Your task to perform on an android device: add a contact Image 0: 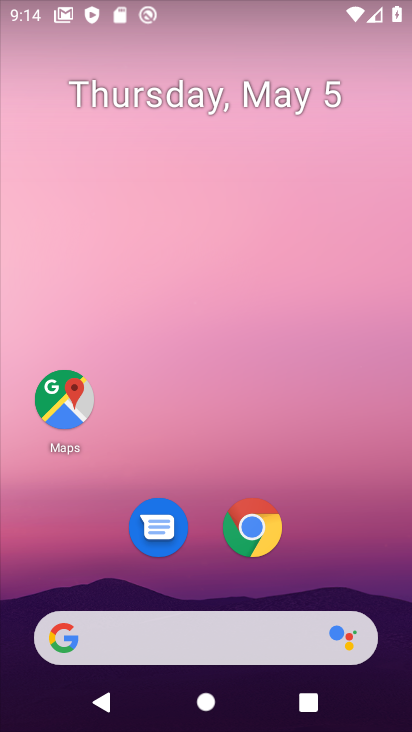
Step 0: drag from (370, 571) to (345, 254)
Your task to perform on an android device: add a contact Image 1: 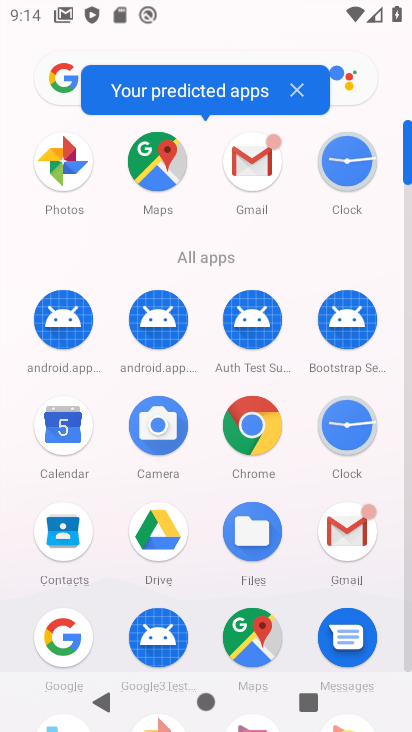
Step 1: click (87, 519)
Your task to perform on an android device: add a contact Image 2: 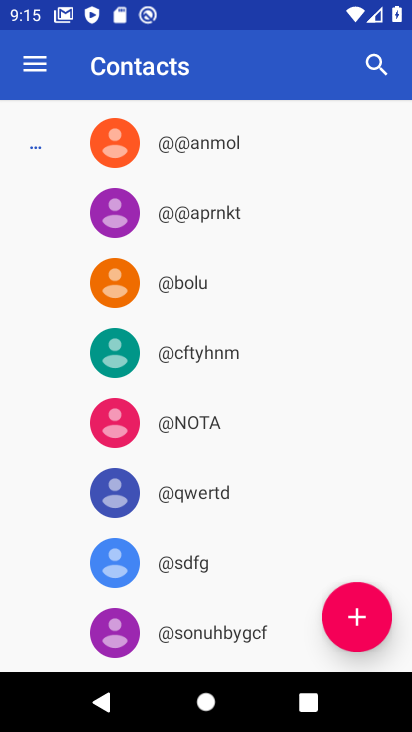
Step 2: click (350, 605)
Your task to perform on an android device: add a contact Image 3: 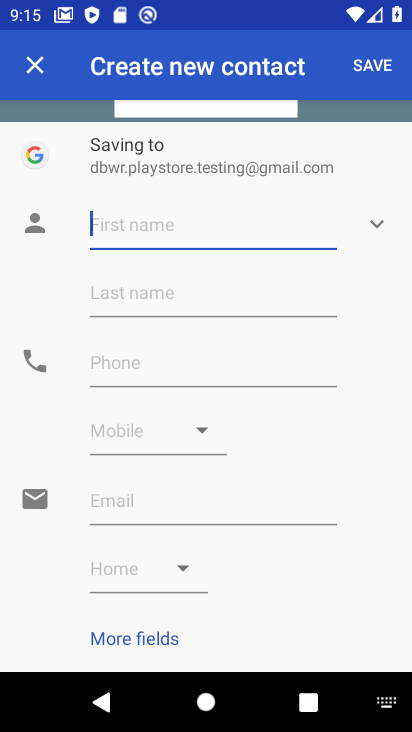
Step 3: click (152, 233)
Your task to perform on an android device: add a contact Image 4: 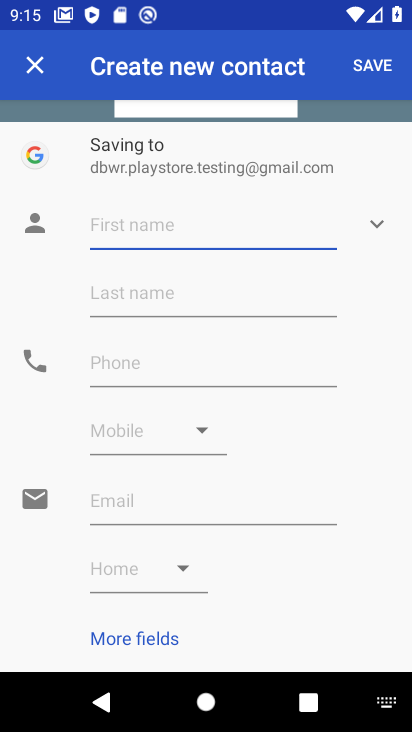
Step 4: type "sdbksjbfk"
Your task to perform on an android device: add a contact Image 5: 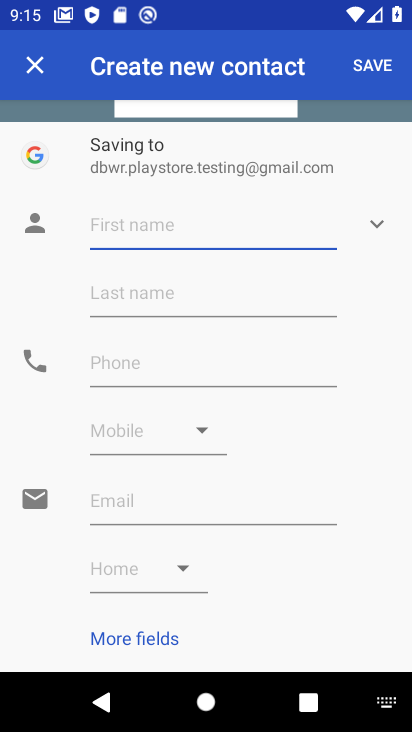
Step 5: click (250, 375)
Your task to perform on an android device: add a contact Image 6: 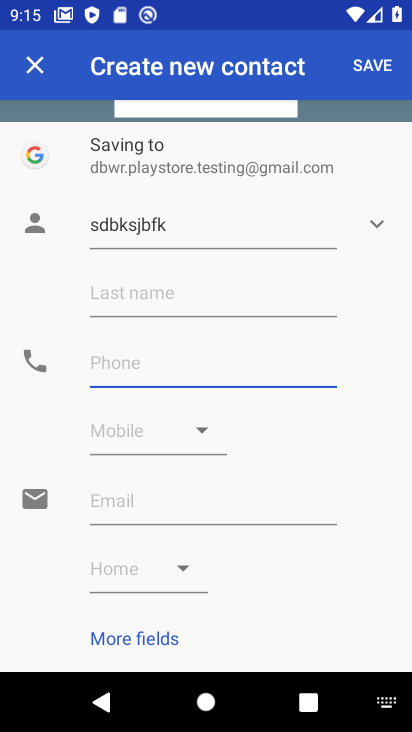
Step 6: type "43873647"
Your task to perform on an android device: add a contact Image 7: 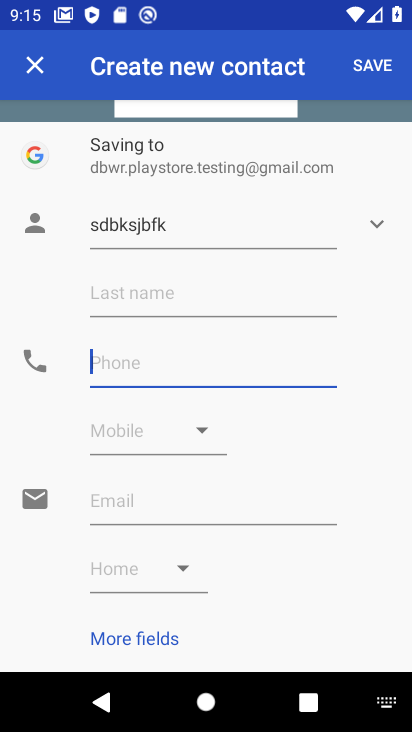
Step 7: click (367, 72)
Your task to perform on an android device: add a contact Image 8: 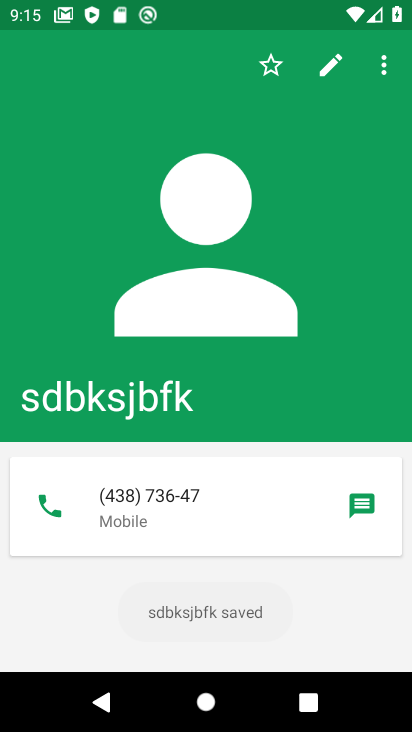
Step 8: task complete